Your task to perform on an android device: Open Google Chrome and open the bookmarks view Image 0: 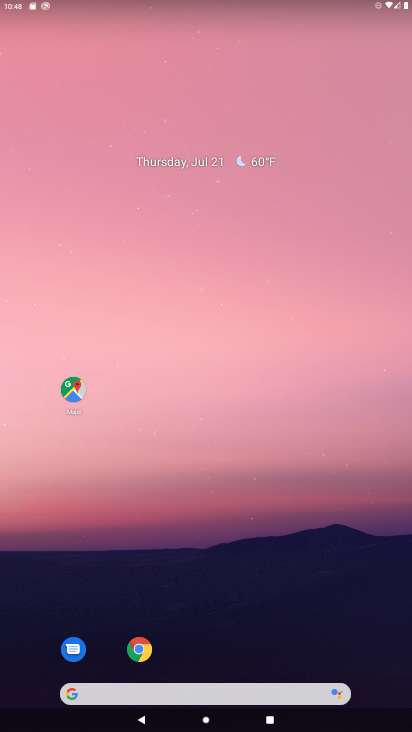
Step 0: click (135, 652)
Your task to perform on an android device: Open Google Chrome and open the bookmarks view Image 1: 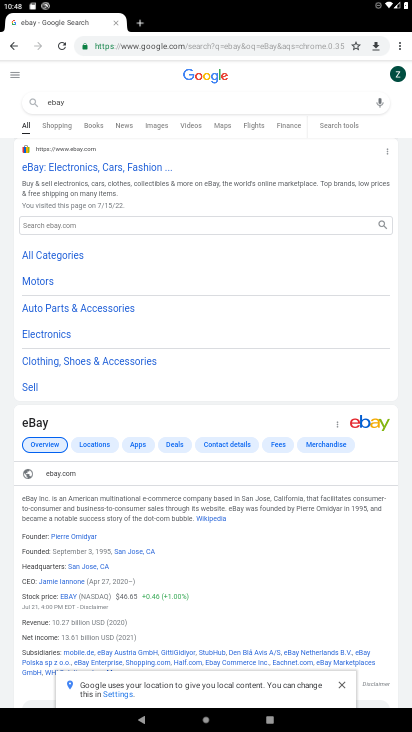
Step 1: click (399, 49)
Your task to perform on an android device: Open Google Chrome and open the bookmarks view Image 2: 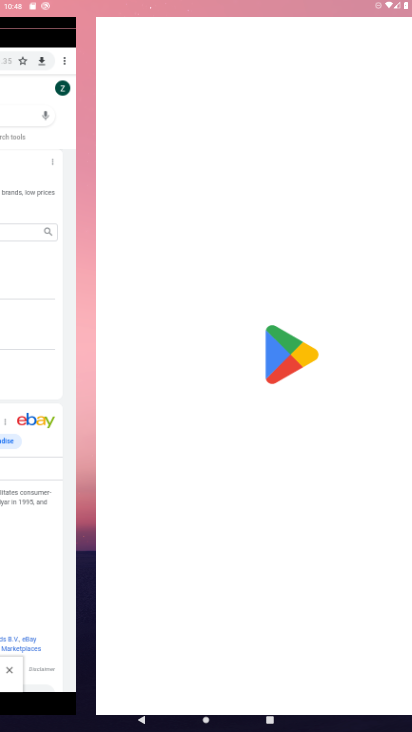
Step 2: click (399, 49)
Your task to perform on an android device: Open Google Chrome and open the bookmarks view Image 3: 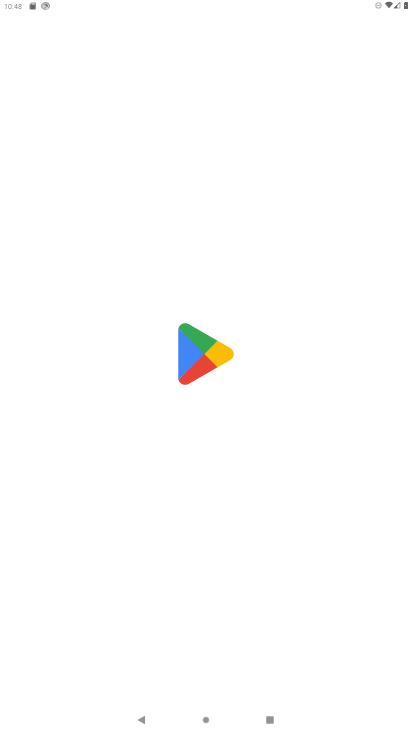
Step 3: press home button
Your task to perform on an android device: Open Google Chrome and open the bookmarks view Image 4: 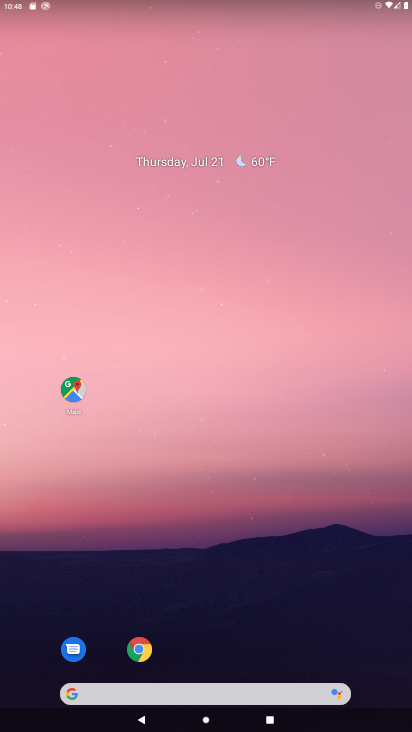
Step 4: click (133, 647)
Your task to perform on an android device: Open Google Chrome and open the bookmarks view Image 5: 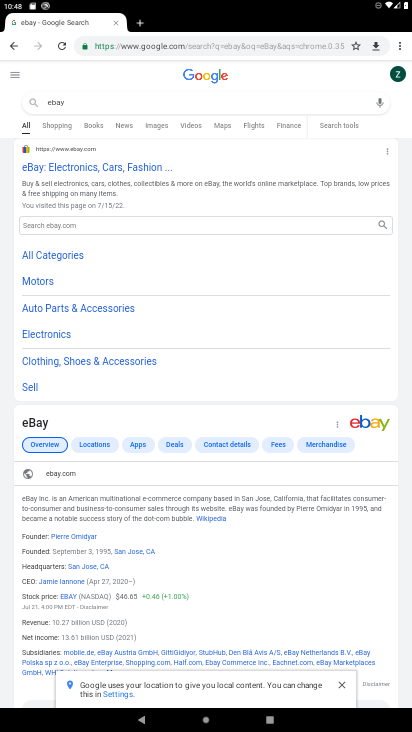
Step 5: click (398, 45)
Your task to perform on an android device: Open Google Chrome and open the bookmarks view Image 6: 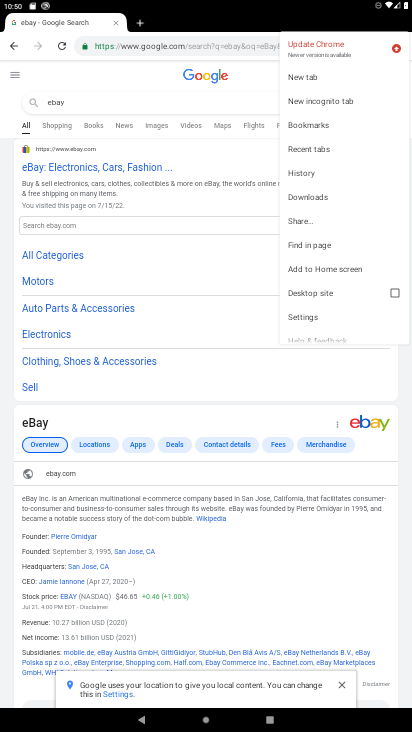
Step 6: click (309, 124)
Your task to perform on an android device: Open Google Chrome and open the bookmarks view Image 7: 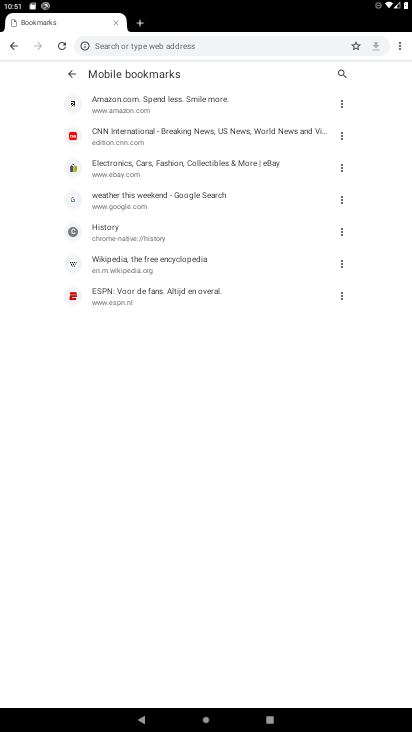
Step 7: task complete